Your task to perform on an android device: star an email in the gmail app Image 0: 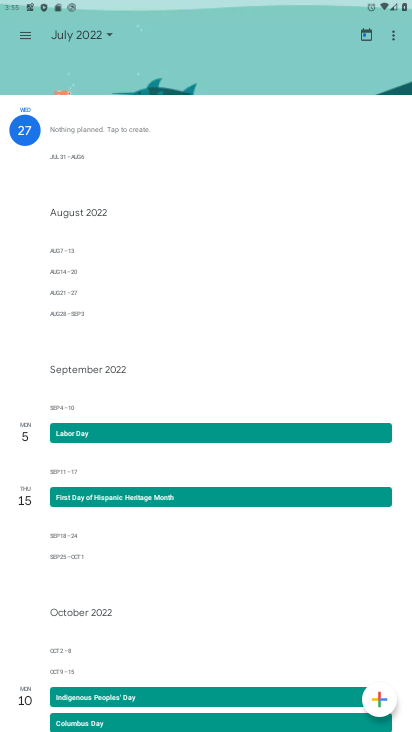
Step 0: press home button
Your task to perform on an android device: star an email in the gmail app Image 1: 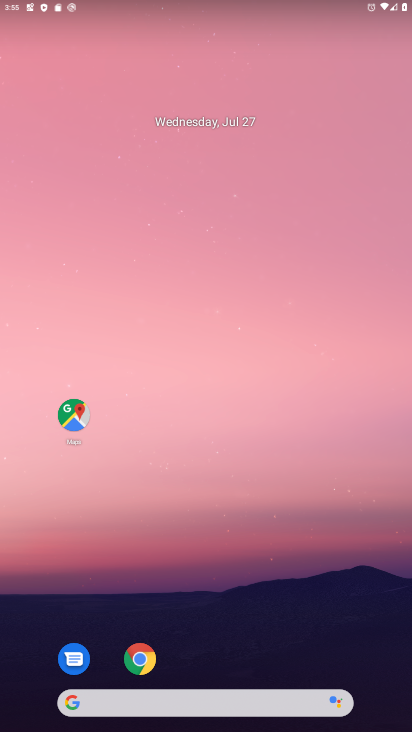
Step 1: drag from (275, 659) to (328, 190)
Your task to perform on an android device: star an email in the gmail app Image 2: 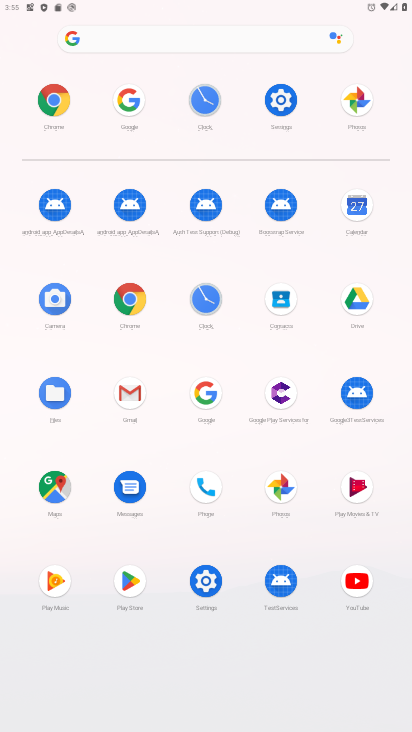
Step 2: click (121, 387)
Your task to perform on an android device: star an email in the gmail app Image 3: 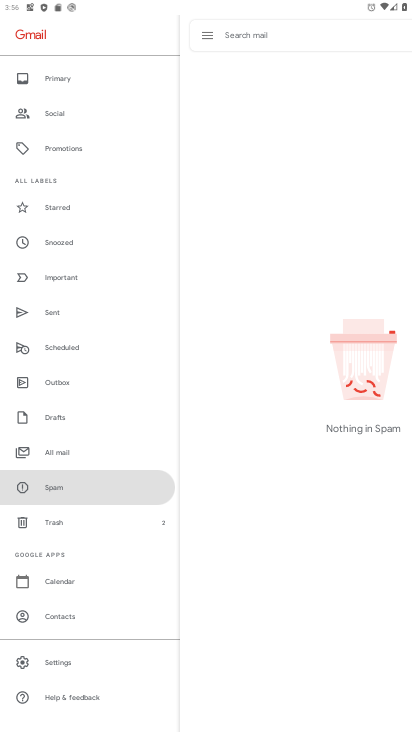
Step 3: click (77, 451)
Your task to perform on an android device: star an email in the gmail app Image 4: 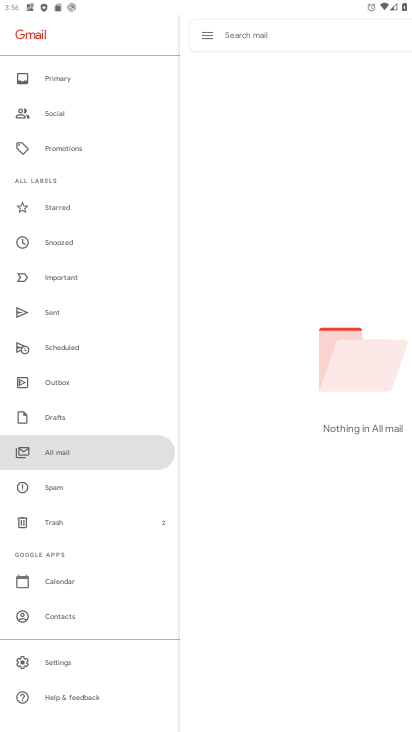
Step 4: task complete